Your task to perform on an android device: Empty the shopping cart on newegg.com. Add macbook pro 15 inch to the cart on newegg.com Image 0: 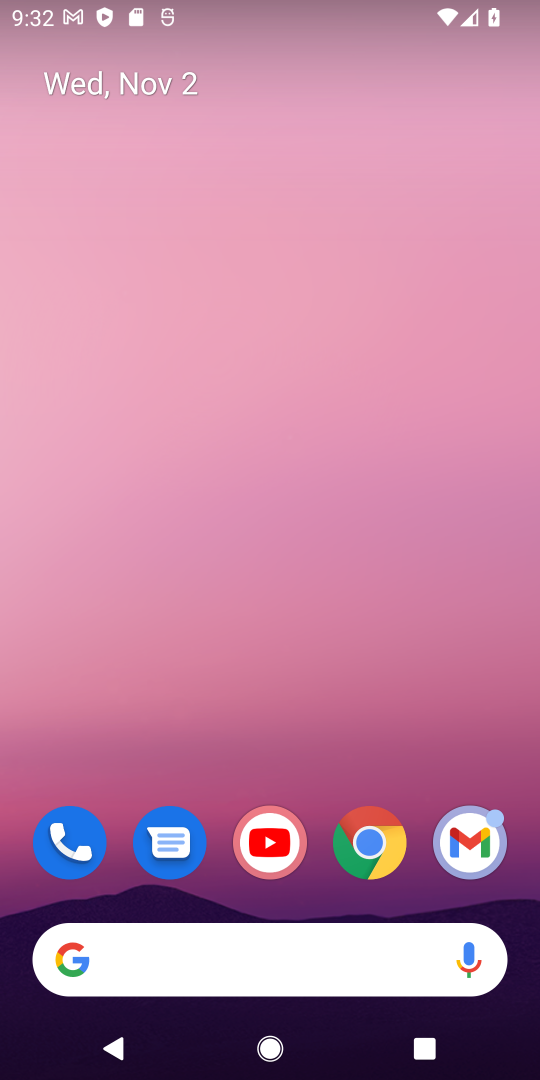
Step 0: drag from (161, 904) to (401, 80)
Your task to perform on an android device: Empty the shopping cart on newegg.com. Add macbook pro 15 inch to the cart on newegg.com Image 1: 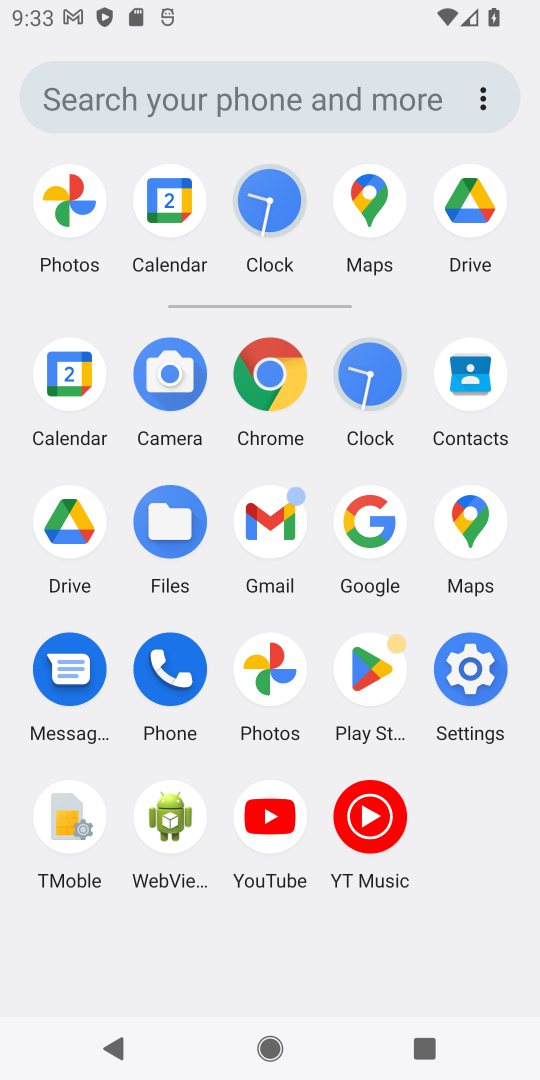
Step 1: click (369, 526)
Your task to perform on an android device: Empty the shopping cart on newegg.com. Add macbook pro 15 inch to the cart on newegg.com Image 2: 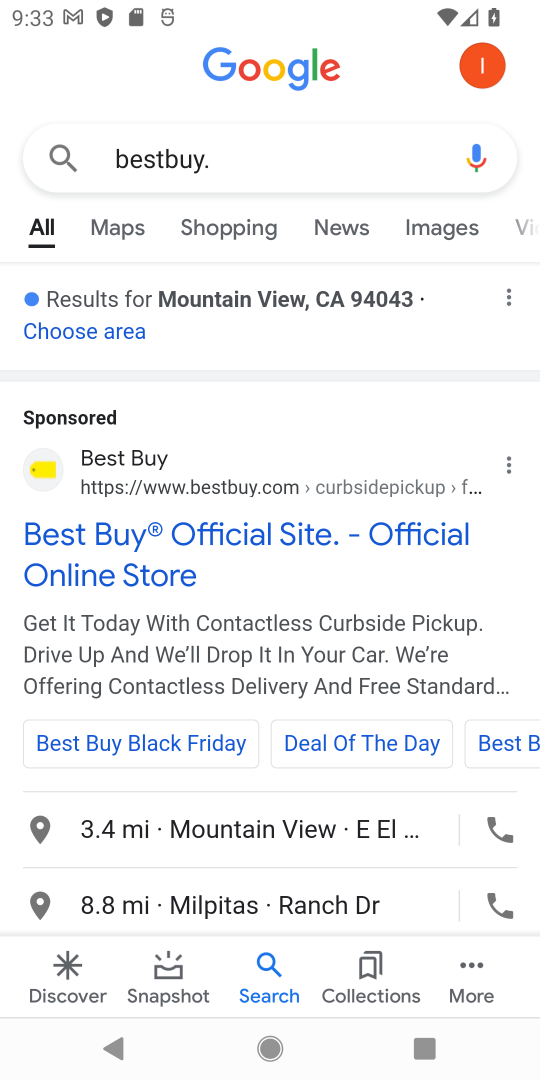
Step 2: click (240, 154)
Your task to perform on an android device: Empty the shopping cart on newegg.com. Add macbook pro 15 inch to the cart on newegg.com Image 3: 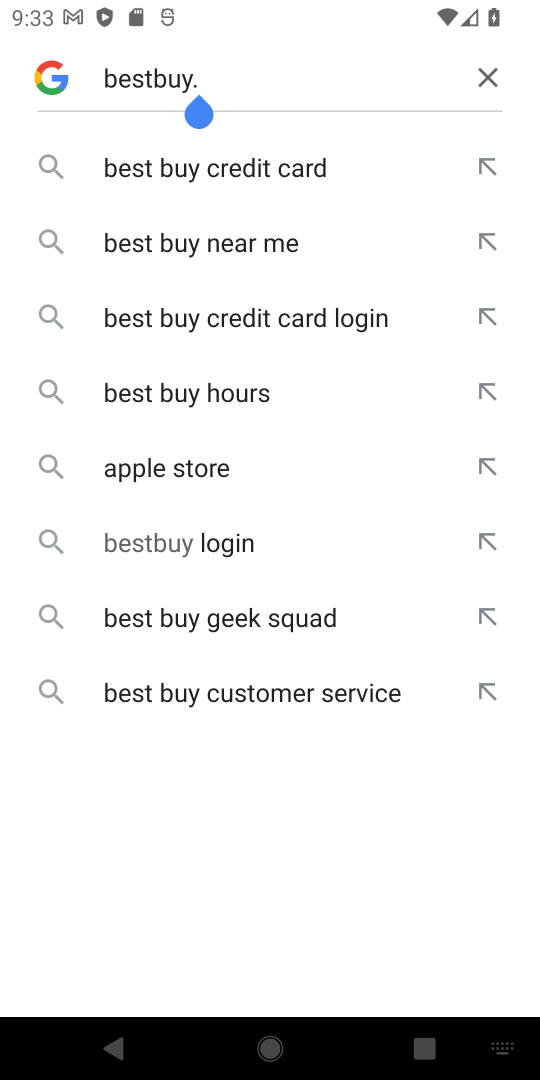
Step 3: click (481, 76)
Your task to perform on an android device: Empty the shopping cart on newegg.com. Add macbook pro 15 inch to the cart on newegg.com Image 4: 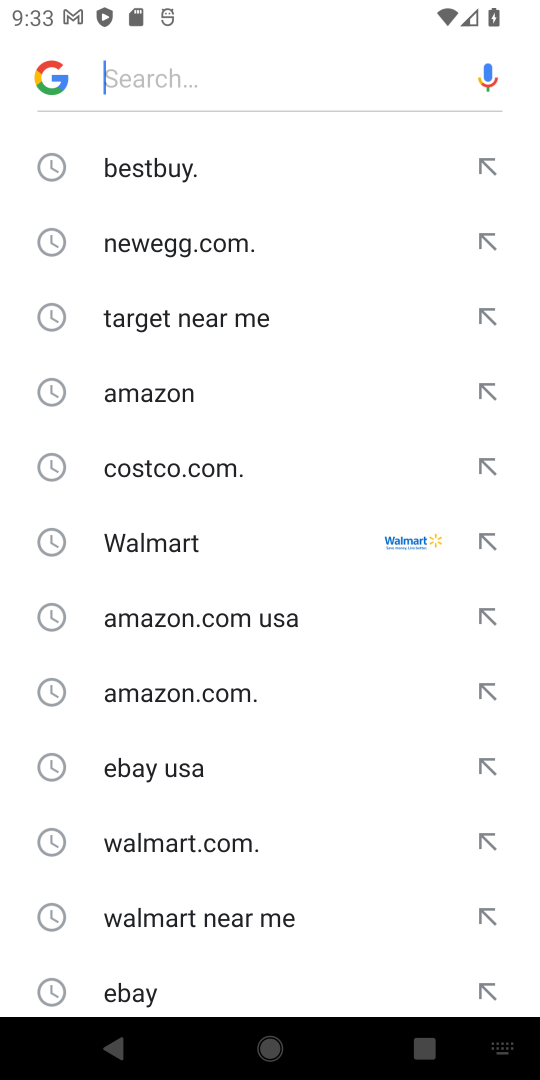
Step 4: click (227, 238)
Your task to perform on an android device: Empty the shopping cart on newegg.com. Add macbook pro 15 inch to the cart on newegg.com Image 5: 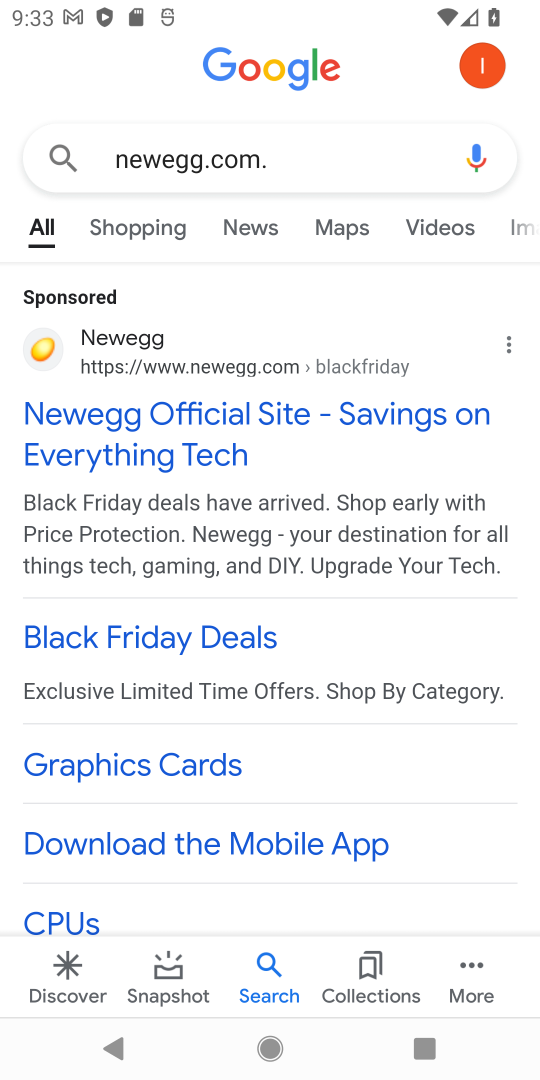
Step 5: click (38, 355)
Your task to perform on an android device: Empty the shopping cart on newegg.com. Add macbook pro 15 inch to the cart on newegg.com Image 6: 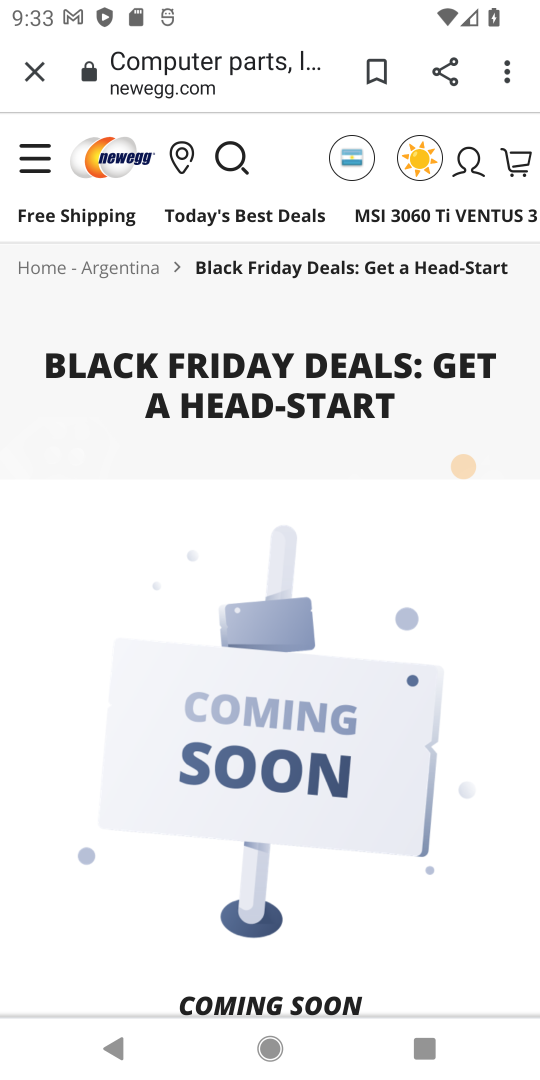
Step 6: click (227, 161)
Your task to perform on an android device: Empty the shopping cart on newegg.com. Add macbook pro 15 inch to the cart on newegg.com Image 7: 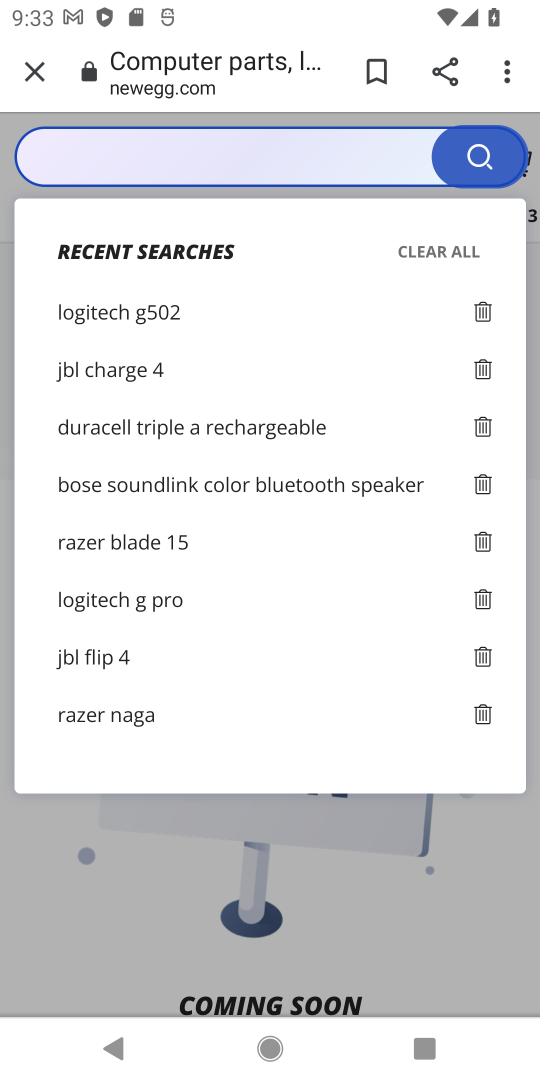
Step 7: click (206, 144)
Your task to perform on an android device: Empty the shopping cart on newegg.com. Add macbook pro 15 inch to the cart on newegg.com Image 8: 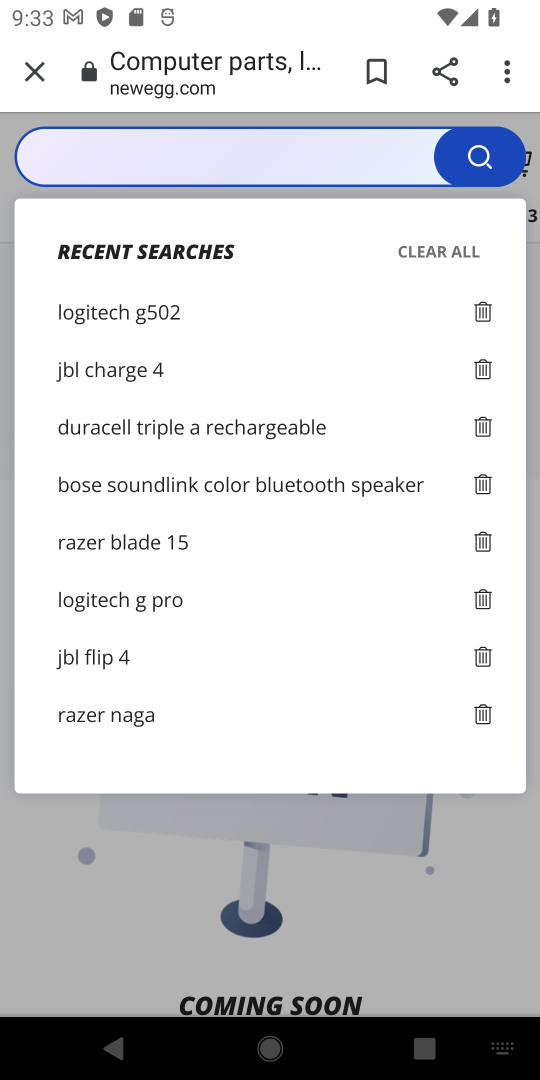
Step 8: type "macbook "
Your task to perform on an android device: Empty the shopping cart on newegg.com. Add macbook pro 15 inch to the cart on newegg.com Image 9: 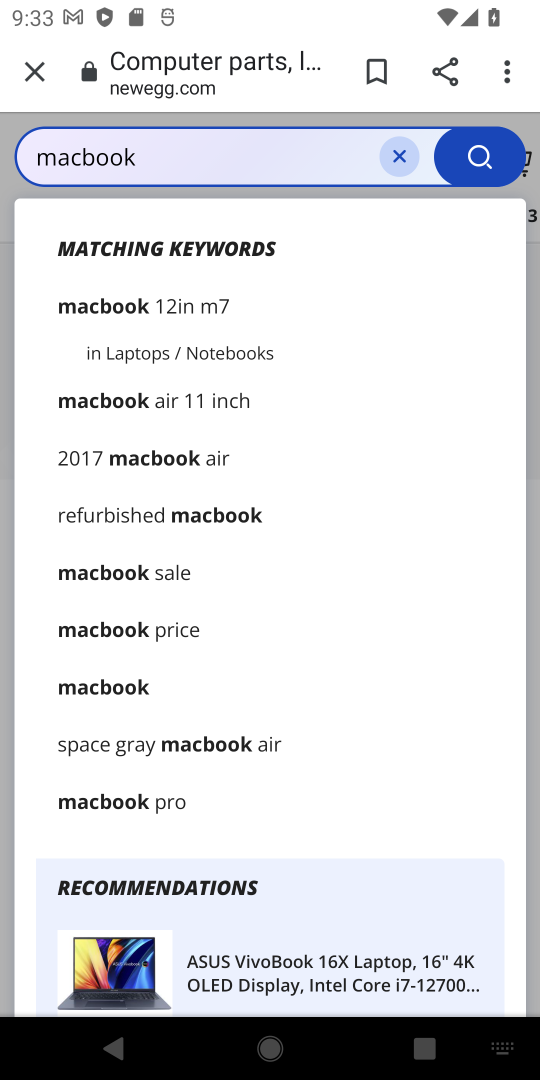
Step 9: click (165, 296)
Your task to perform on an android device: Empty the shopping cart on newegg.com. Add macbook pro 15 inch to the cart on newegg.com Image 10: 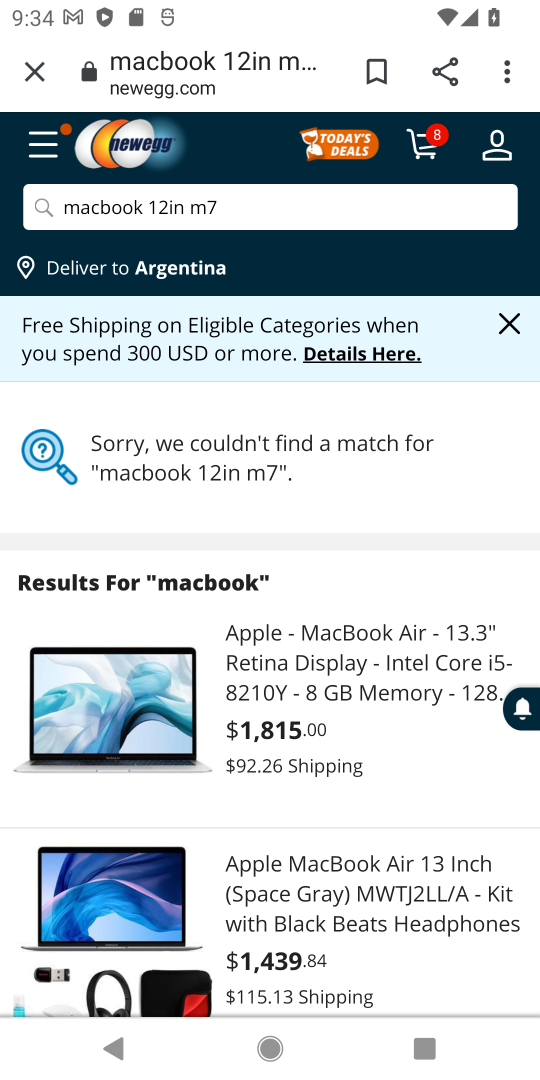
Step 10: click (272, 633)
Your task to perform on an android device: Empty the shopping cart on newegg.com. Add macbook pro 15 inch to the cart on newegg.com Image 11: 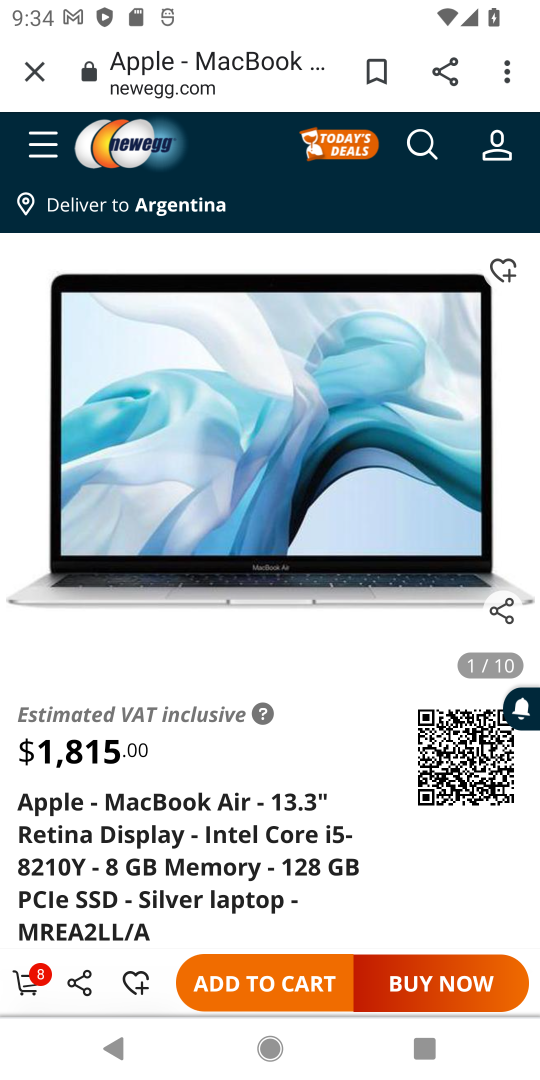
Step 11: click (241, 985)
Your task to perform on an android device: Empty the shopping cart on newegg.com. Add macbook pro 15 inch to the cart on newegg.com Image 12: 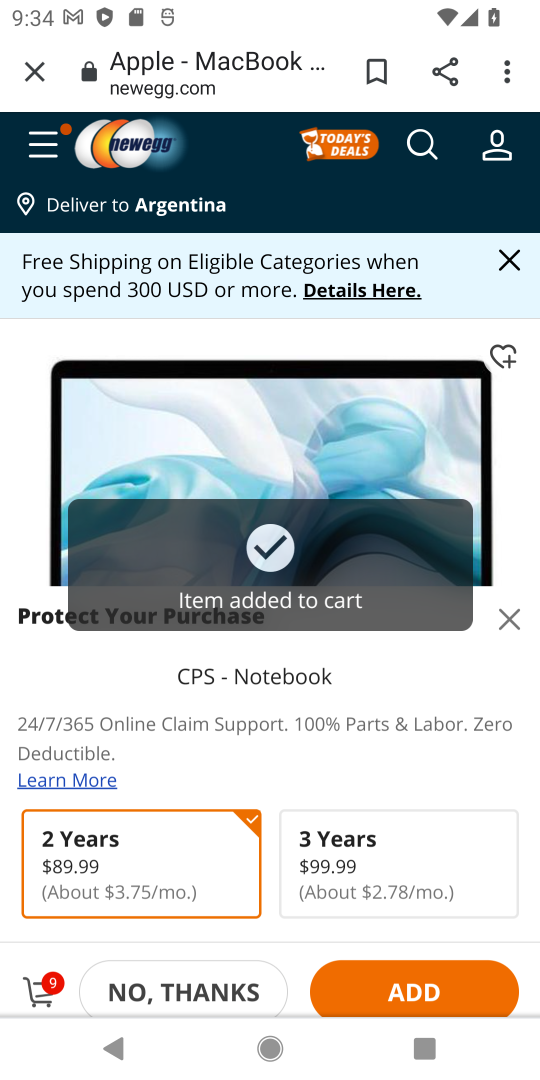
Step 12: task complete